Your task to perform on an android device: turn on bluetooth scan Image 0: 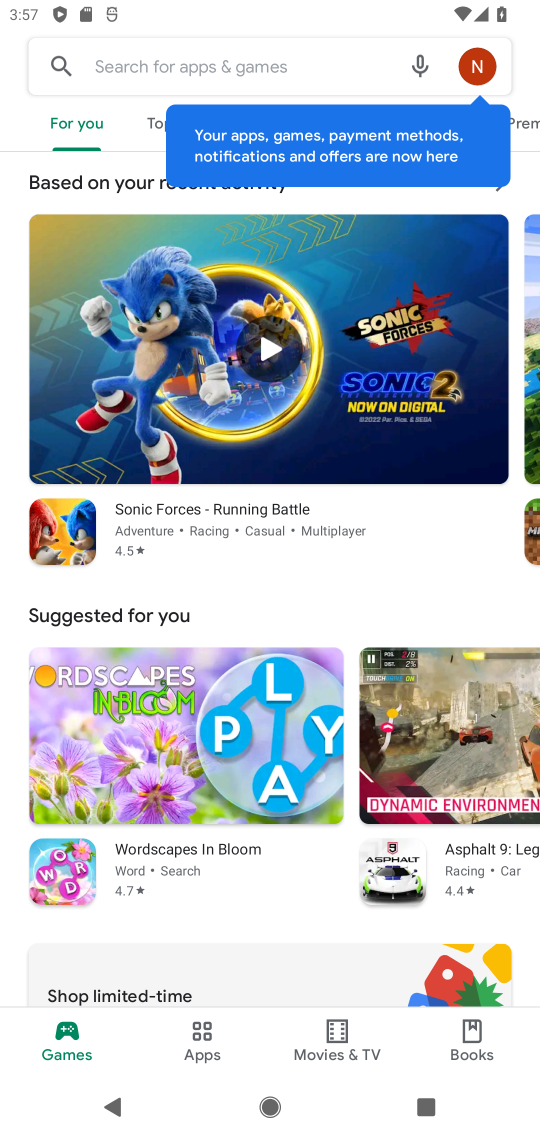
Step 0: press home button
Your task to perform on an android device: turn on bluetooth scan Image 1: 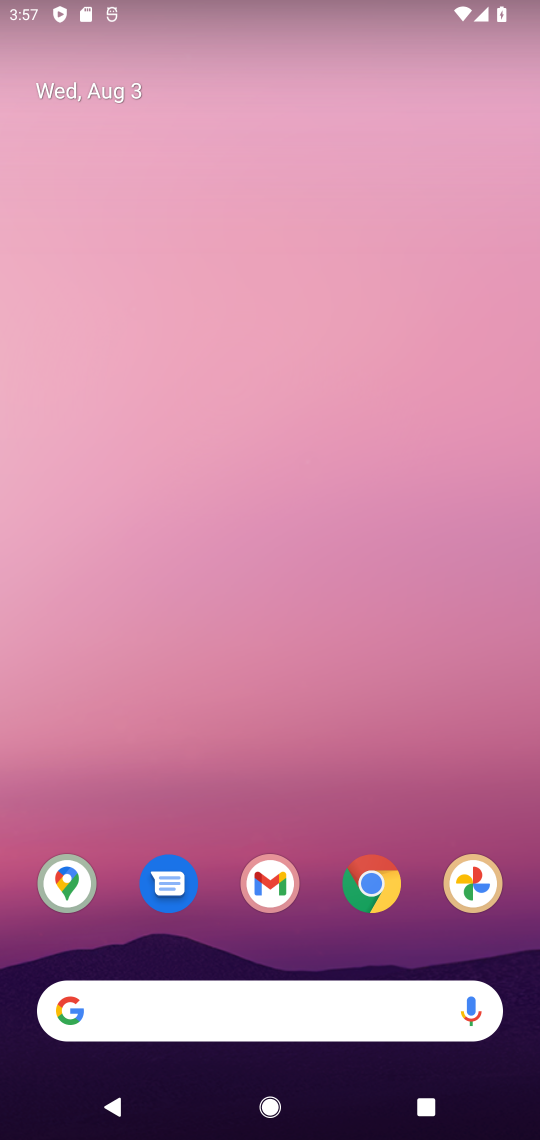
Step 1: drag from (241, 879) to (319, 201)
Your task to perform on an android device: turn on bluetooth scan Image 2: 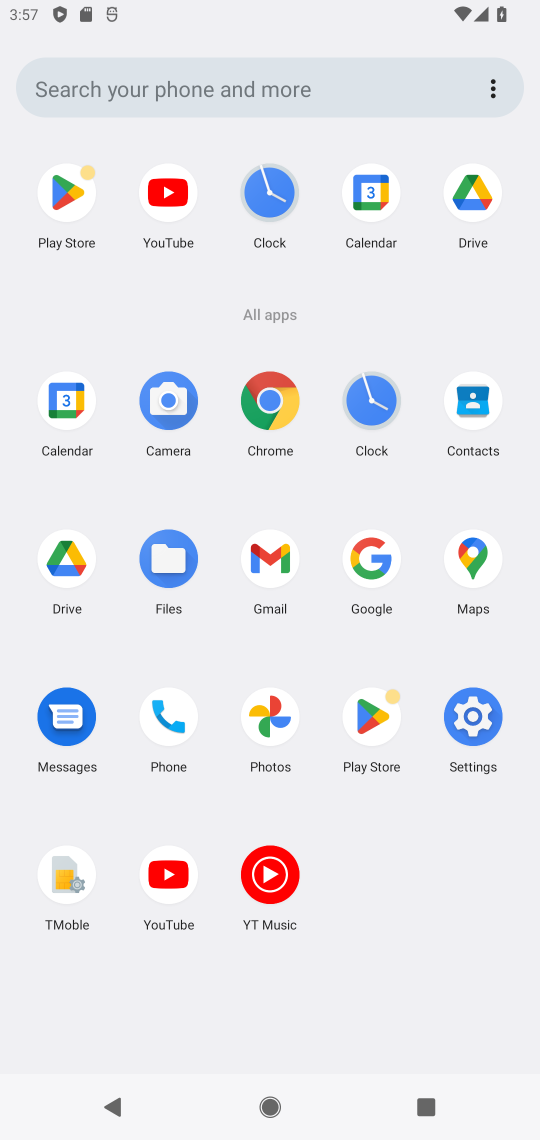
Step 2: click (486, 733)
Your task to perform on an android device: turn on bluetooth scan Image 3: 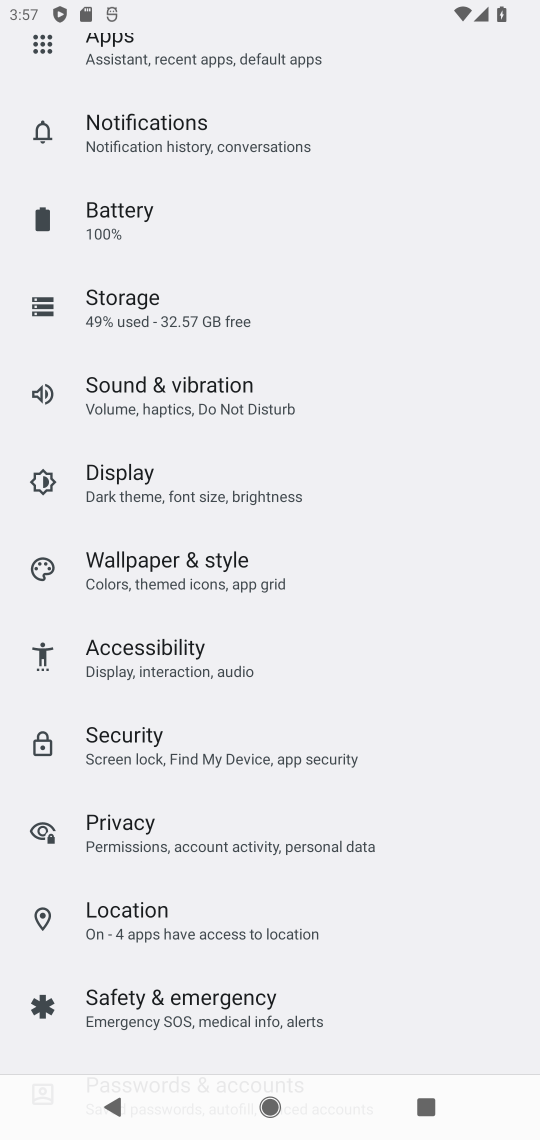
Step 3: click (174, 922)
Your task to perform on an android device: turn on bluetooth scan Image 4: 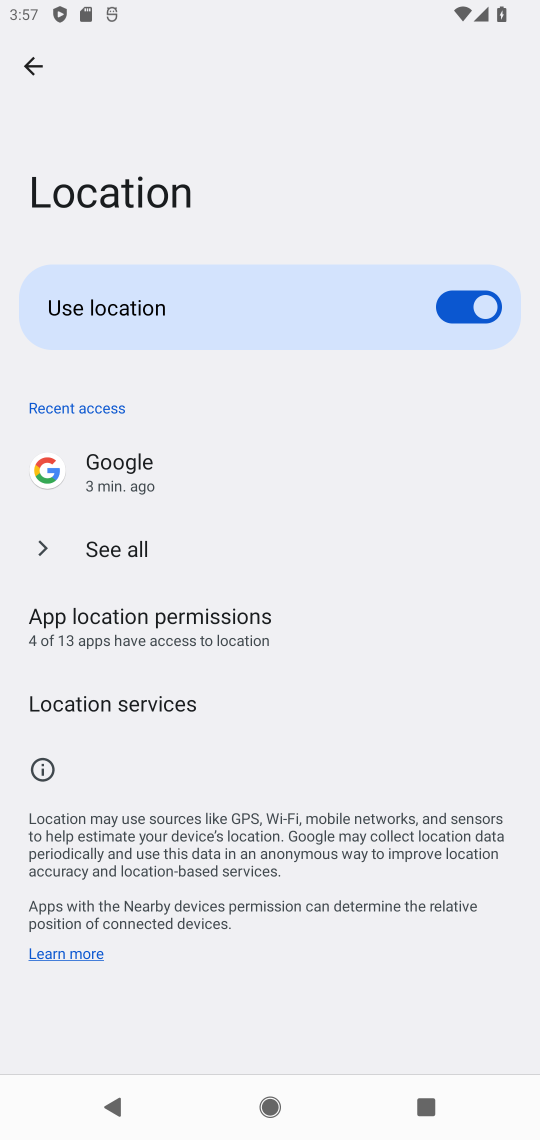
Step 4: click (127, 701)
Your task to perform on an android device: turn on bluetooth scan Image 5: 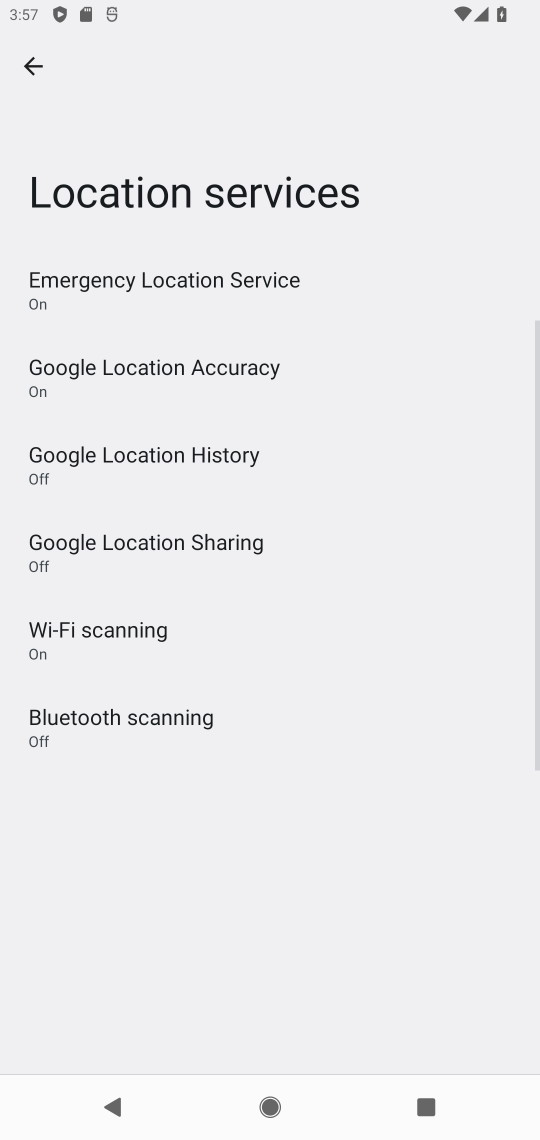
Step 5: click (112, 727)
Your task to perform on an android device: turn on bluetooth scan Image 6: 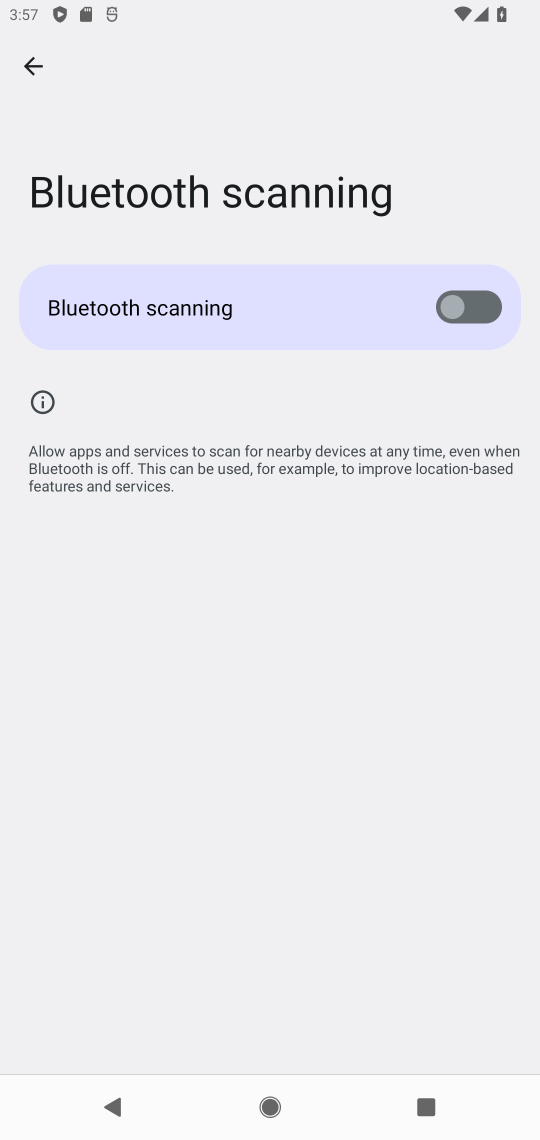
Step 6: click (500, 299)
Your task to perform on an android device: turn on bluetooth scan Image 7: 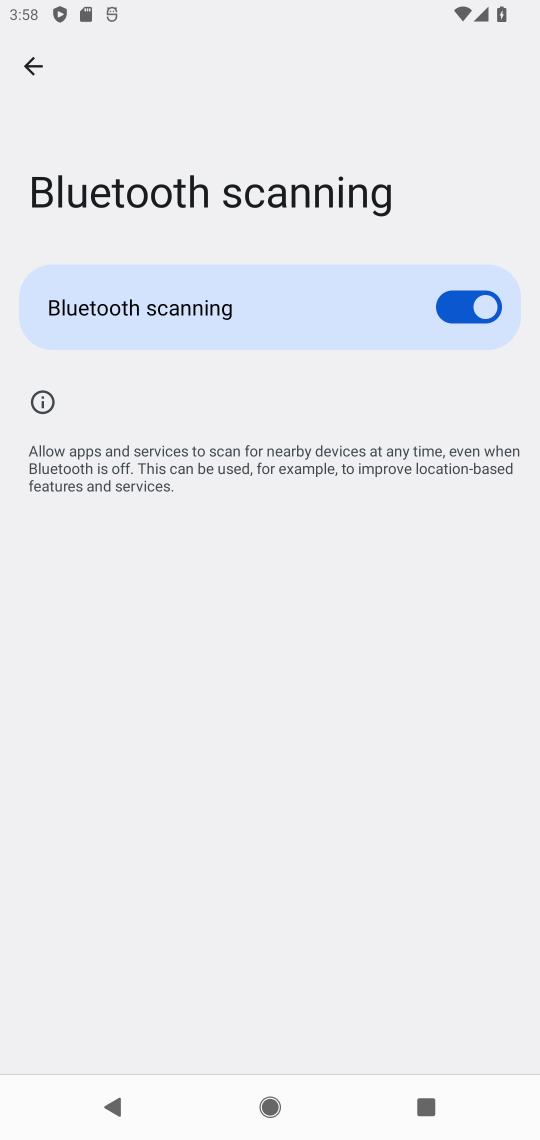
Step 7: task complete